Your task to perform on an android device: What's on my calendar today? Image 0: 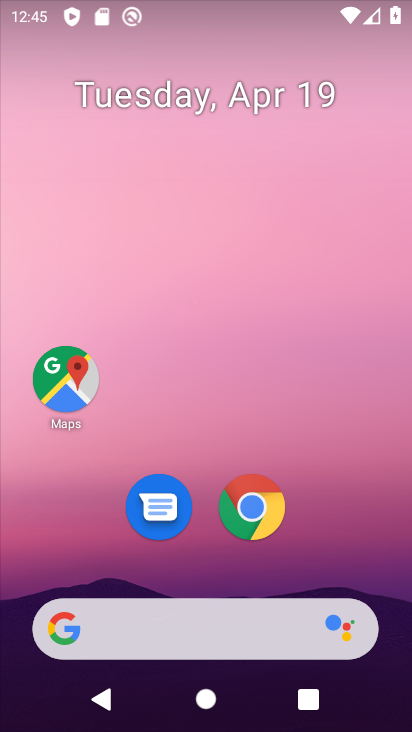
Step 0: press home button
Your task to perform on an android device: What's on my calendar today? Image 1: 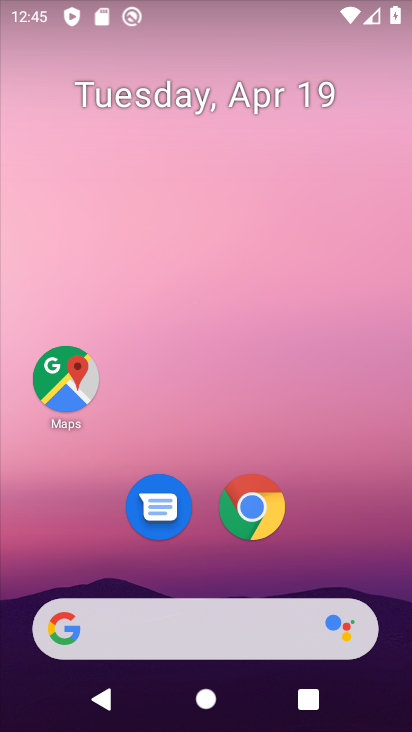
Step 1: drag from (206, 569) to (207, 131)
Your task to perform on an android device: What's on my calendar today? Image 2: 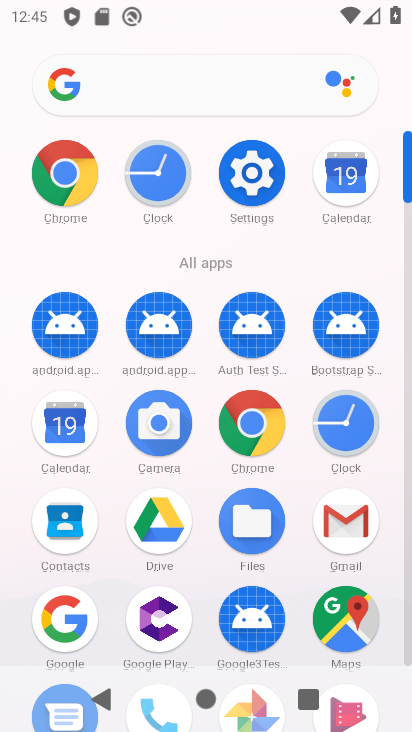
Step 2: click (62, 423)
Your task to perform on an android device: What's on my calendar today? Image 3: 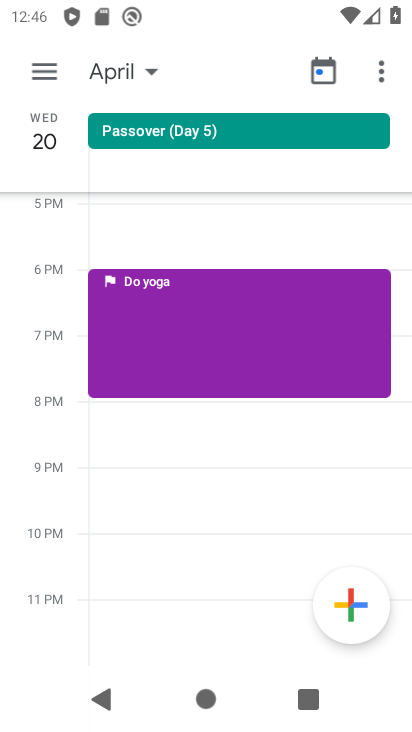
Step 3: click (45, 74)
Your task to perform on an android device: What's on my calendar today? Image 4: 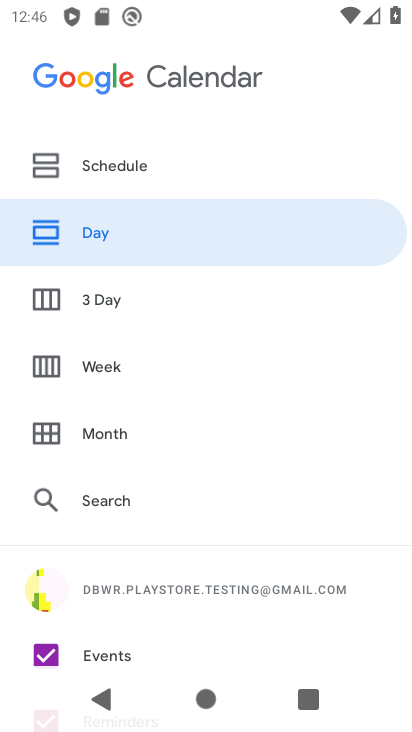
Step 4: click (68, 361)
Your task to perform on an android device: What's on my calendar today? Image 5: 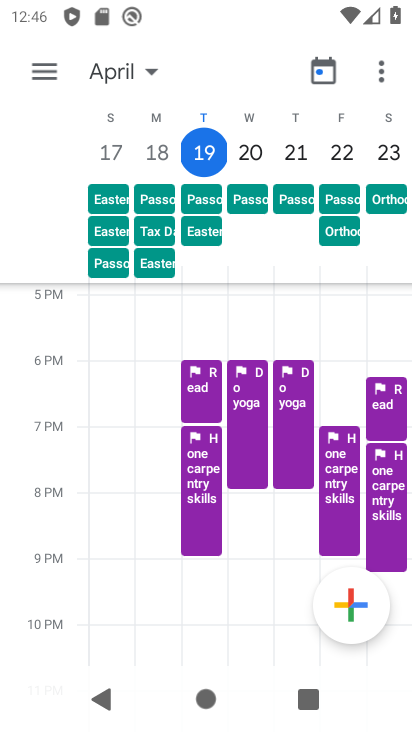
Step 5: click (214, 148)
Your task to perform on an android device: What's on my calendar today? Image 6: 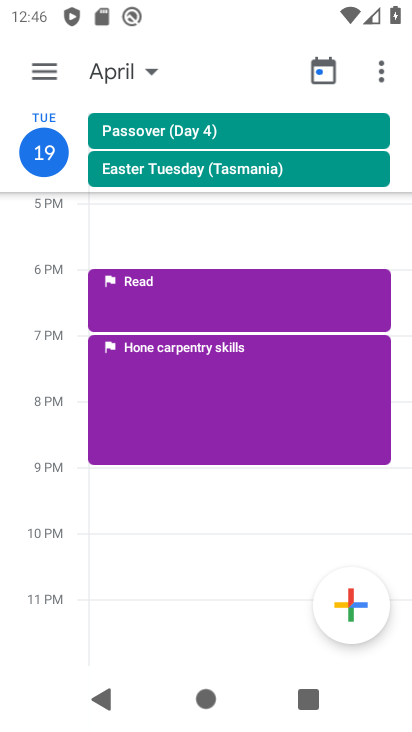
Step 6: task complete